Your task to perform on an android device: turn off wifi Image 0: 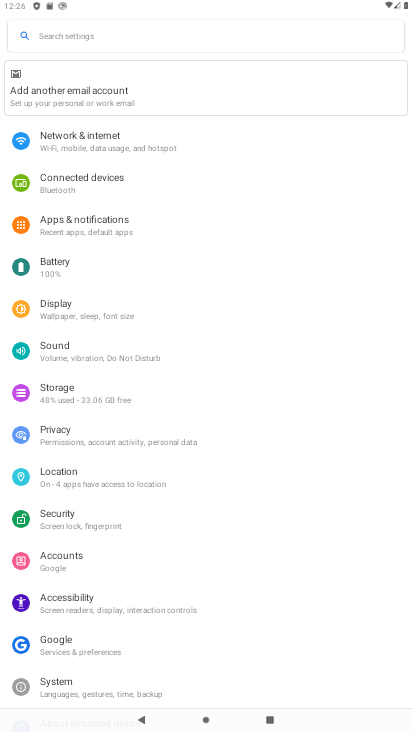
Step 0: click (85, 138)
Your task to perform on an android device: turn off wifi Image 1: 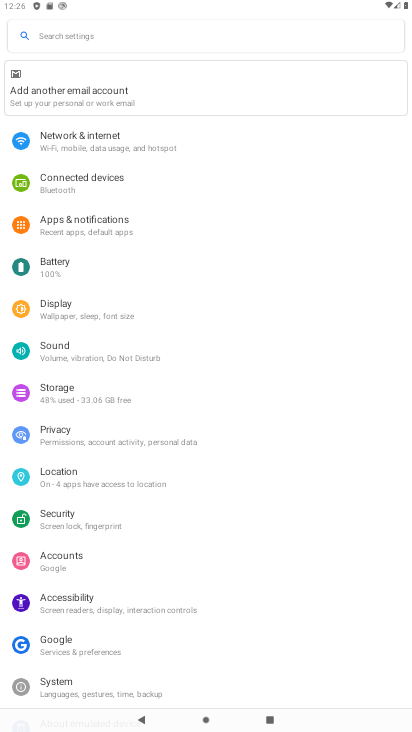
Step 1: click (97, 134)
Your task to perform on an android device: turn off wifi Image 2: 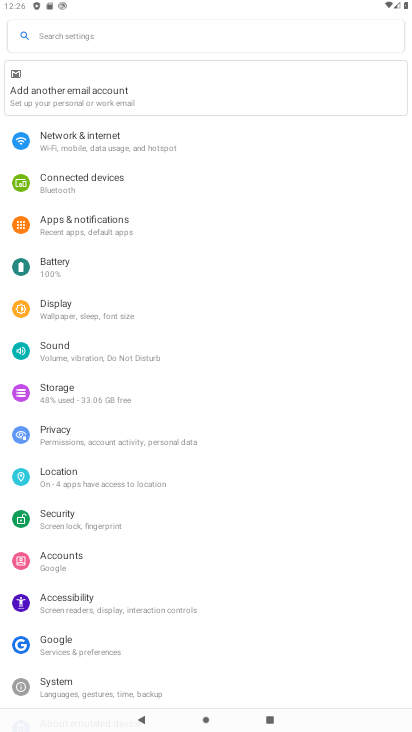
Step 2: click (99, 135)
Your task to perform on an android device: turn off wifi Image 3: 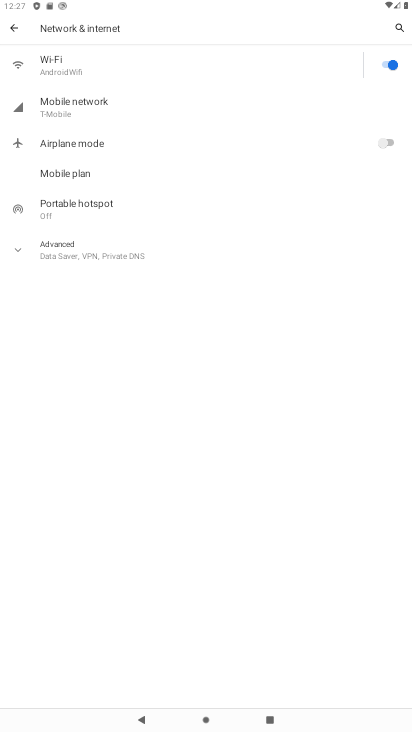
Step 3: task complete